Your task to perform on an android device: Open internet settings Image 0: 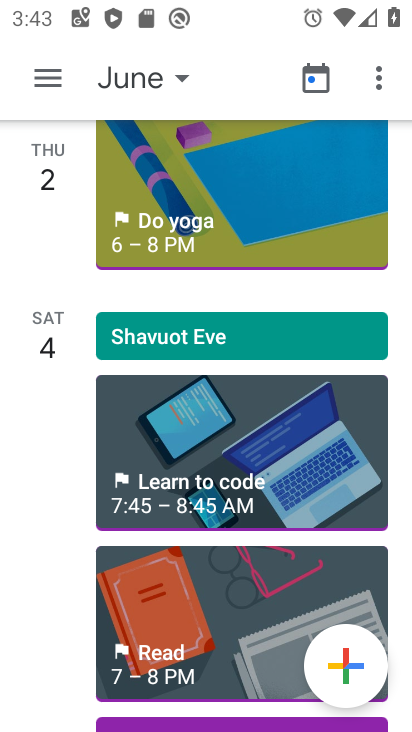
Step 0: press home button
Your task to perform on an android device: Open internet settings Image 1: 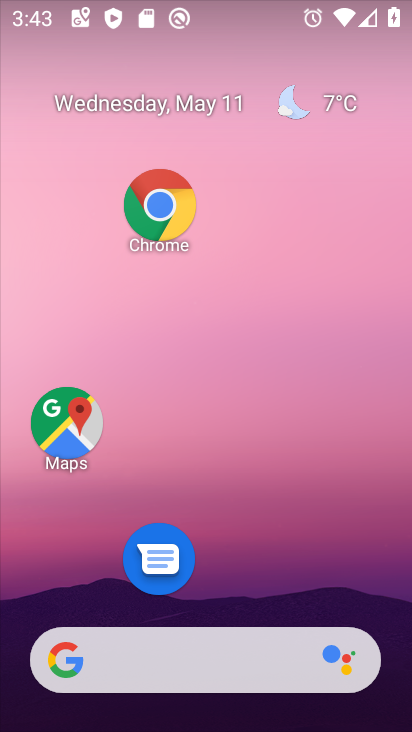
Step 1: drag from (196, 628) to (226, 233)
Your task to perform on an android device: Open internet settings Image 2: 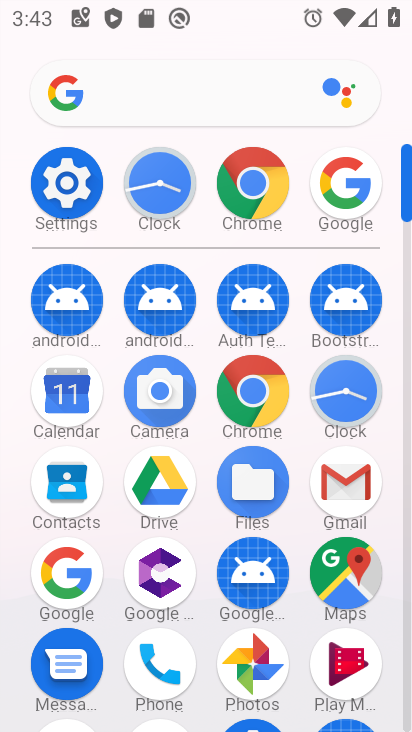
Step 2: click (67, 192)
Your task to perform on an android device: Open internet settings Image 3: 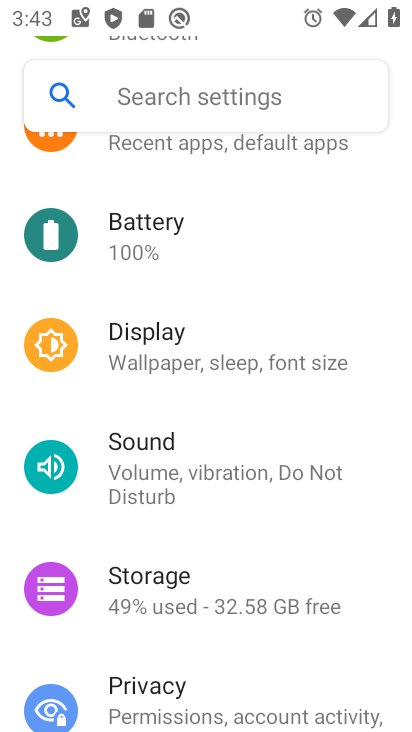
Step 3: drag from (189, 158) to (227, 564)
Your task to perform on an android device: Open internet settings Image 4: 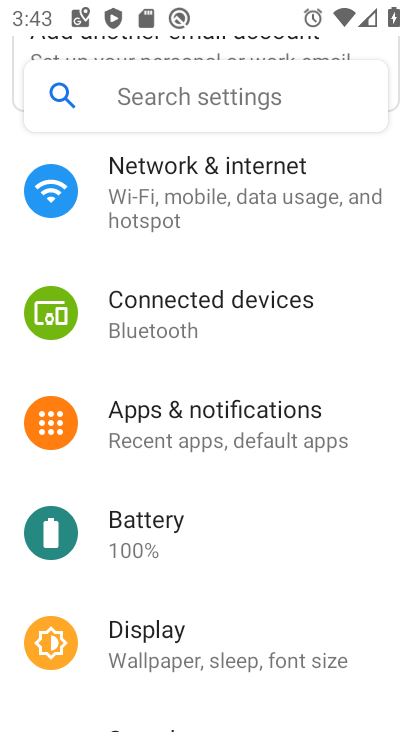
Step 4: click (153, 184)
Your task to perform on an android device: Open internet settings Image 5: 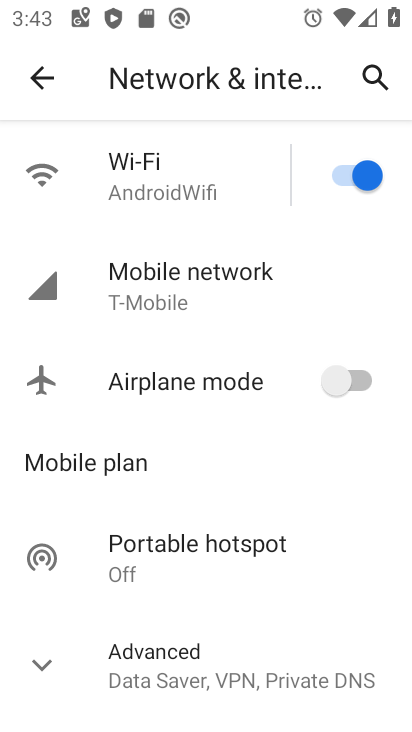
Step 5: click (161, 669)
Your task to perform on an android device: Open internet settings Image 6: 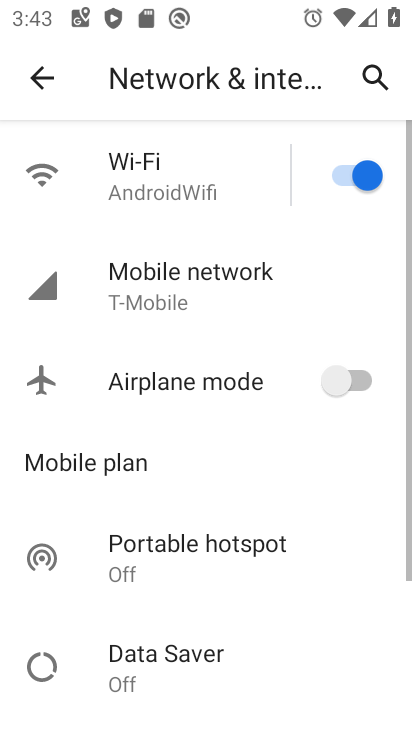
Step 6: task complete